Your task to perform on an android device: Is it going to rain today? Image 0: 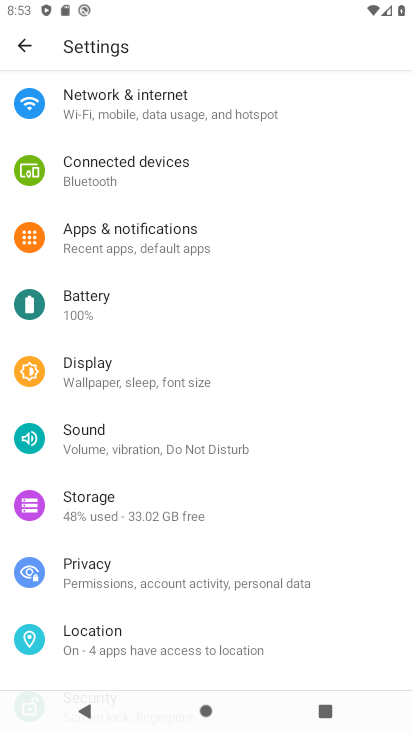
Step 0: press back button
Your task to perform on an android device: Is it going to rain today? Image 1: 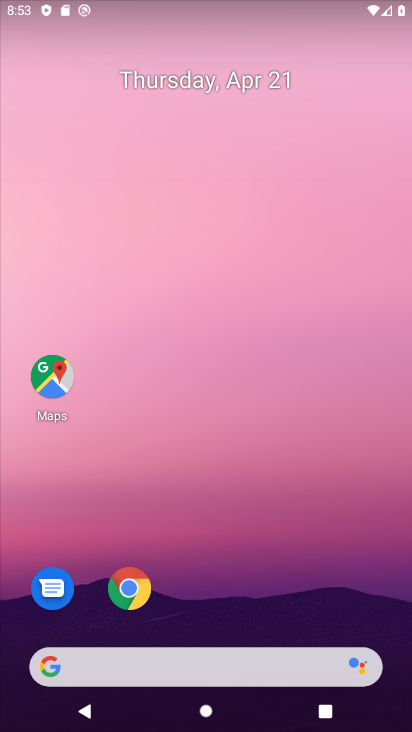
Step 1: click (131, 670)
Your task to perform on an android device: Is it going to rain today? Image 2: 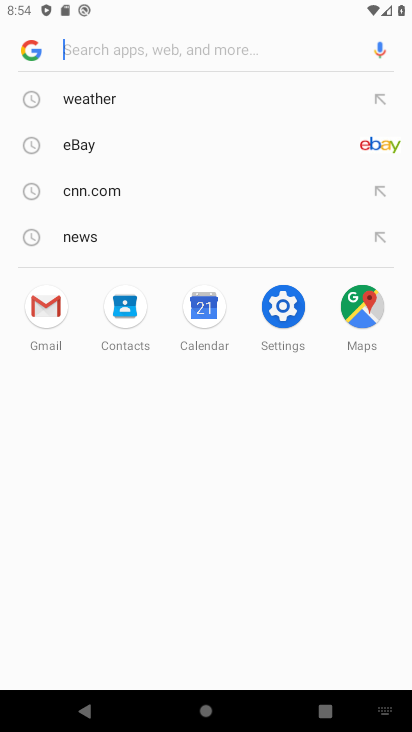
Step 2: type "Is it going to rain today?"
Your task to perform on an android device: Is it going to rain today? Image 3: 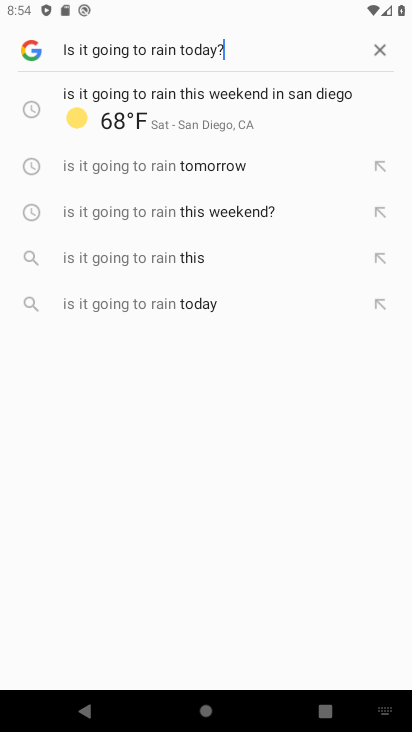
Step 3: type ""
Your task to perform on an android device: Is it going to rain today? Image 4: 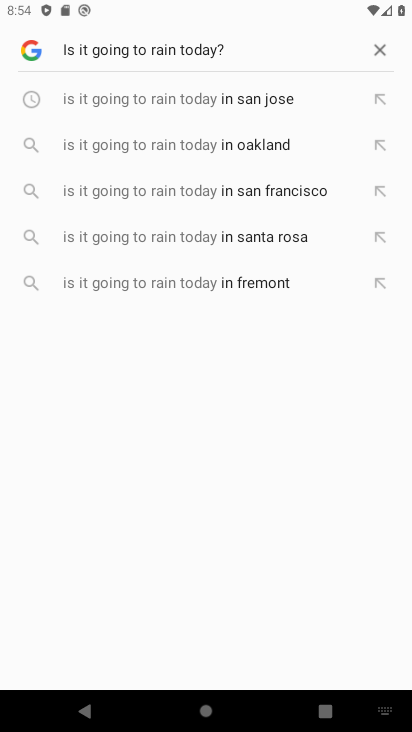
Step 4: click (264, 47)
Your task to perform on an android device: Is it going to rain today? Image 5: 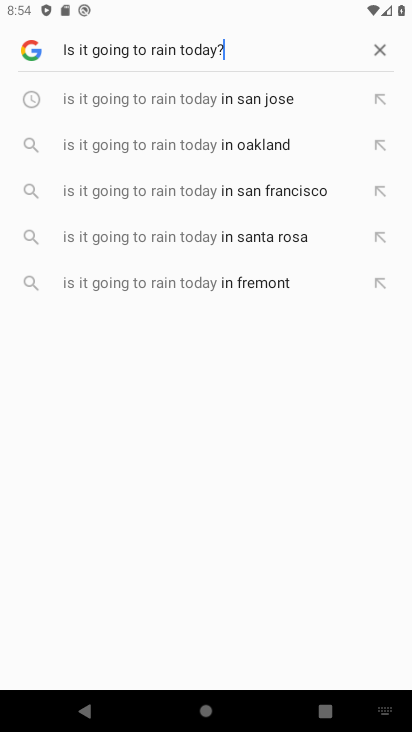
Step 5: click (199, 96)
Your task to perform on an android device: Is it going to rain today? Image 6: 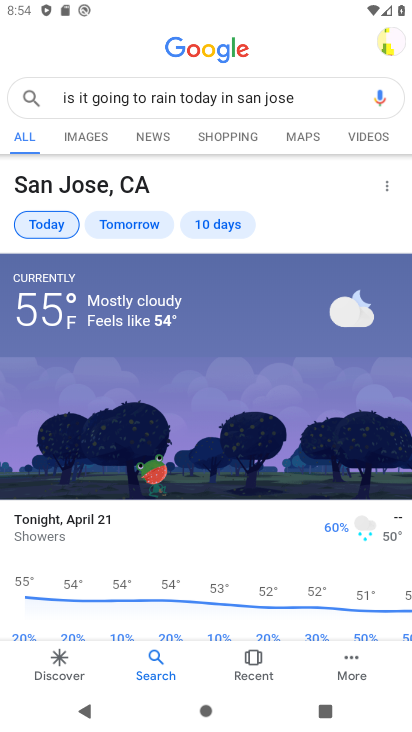
Step 6: task complete